Your task to perform on an android device: install app "Reddit" Image 0: 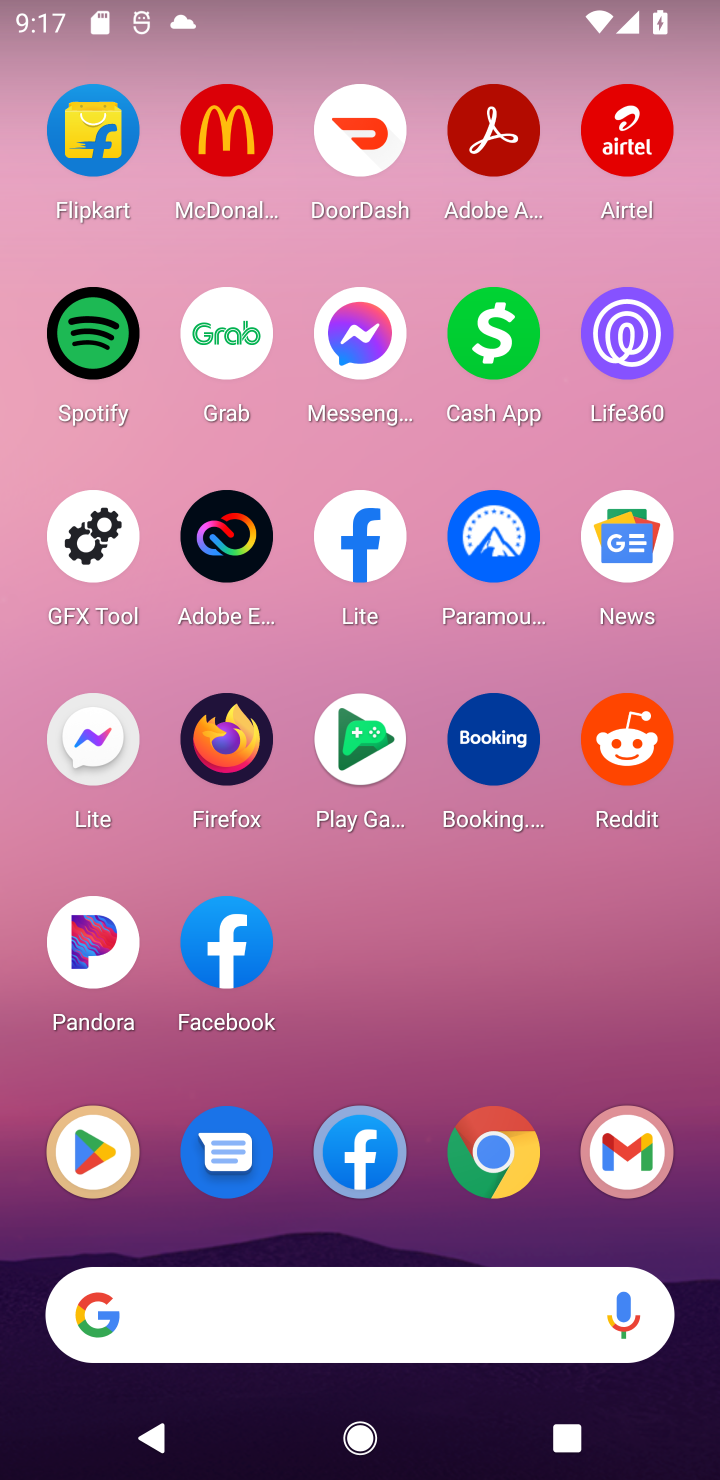
Step 0: click (95, 1159)
Your task to perform on an android device: install app "Reddit" Image 1: 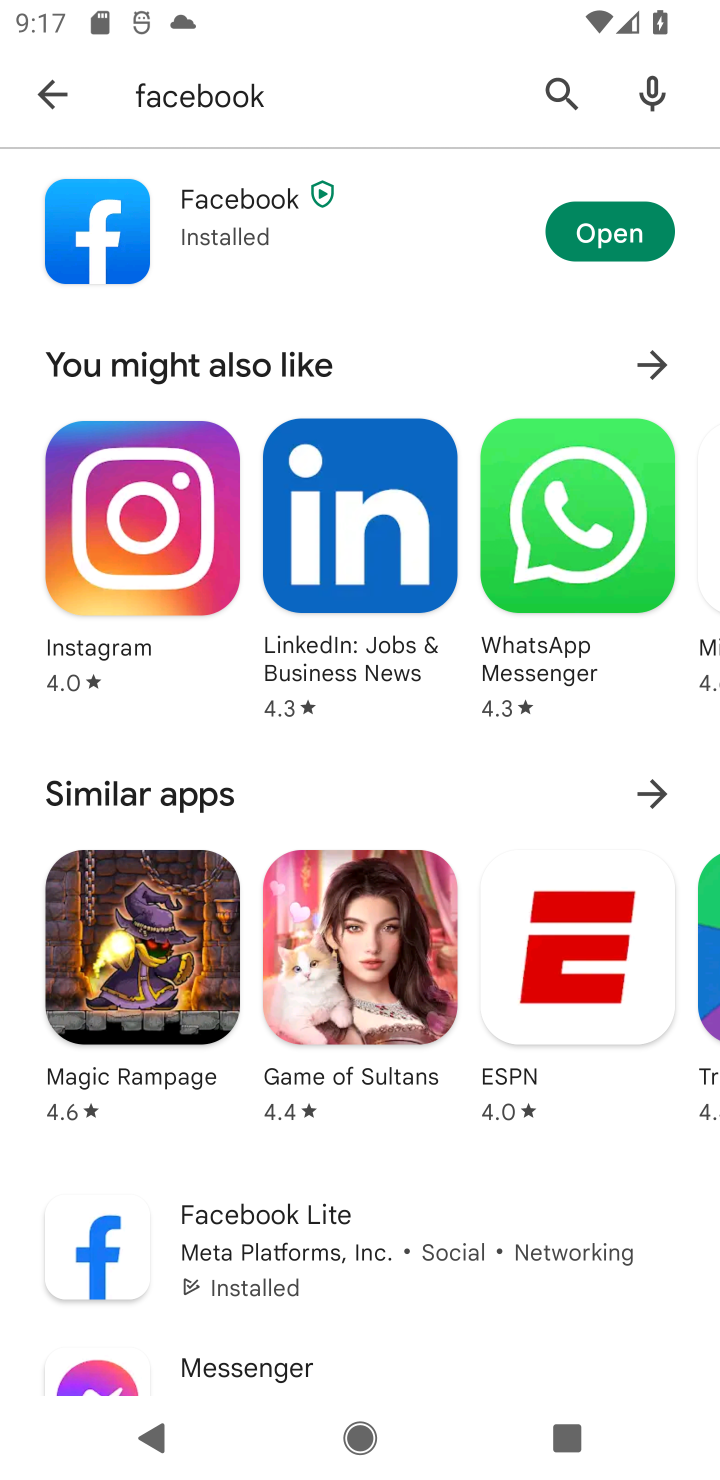
Step 1: click (613, 255)
Your task to perform on an android device: install app "Reddit" Image 2: 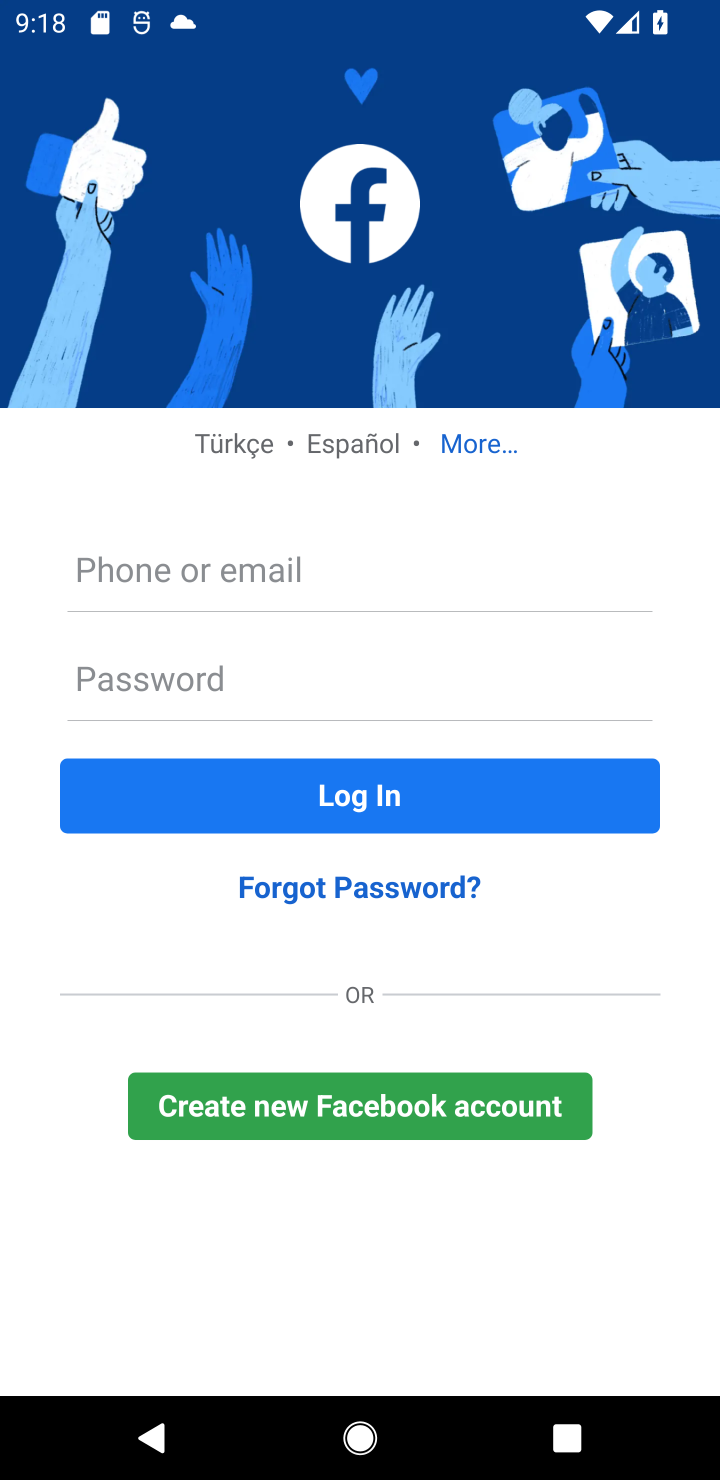
Step 2: press back button
Your task to perform on an android device: install app "Reddit" Image 3: 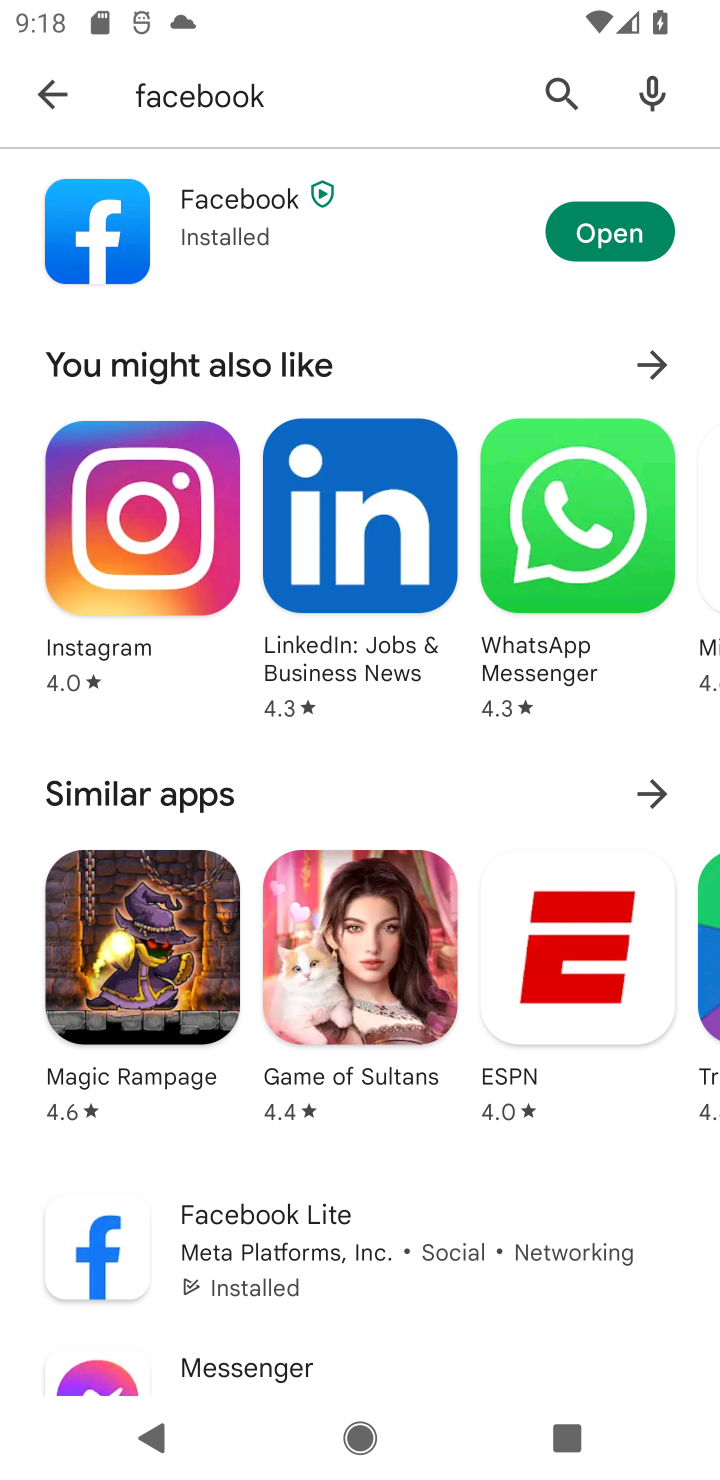
Step 3: click (50, 91)
Your task to perform on an android device: install app "Reddit" Image 4: 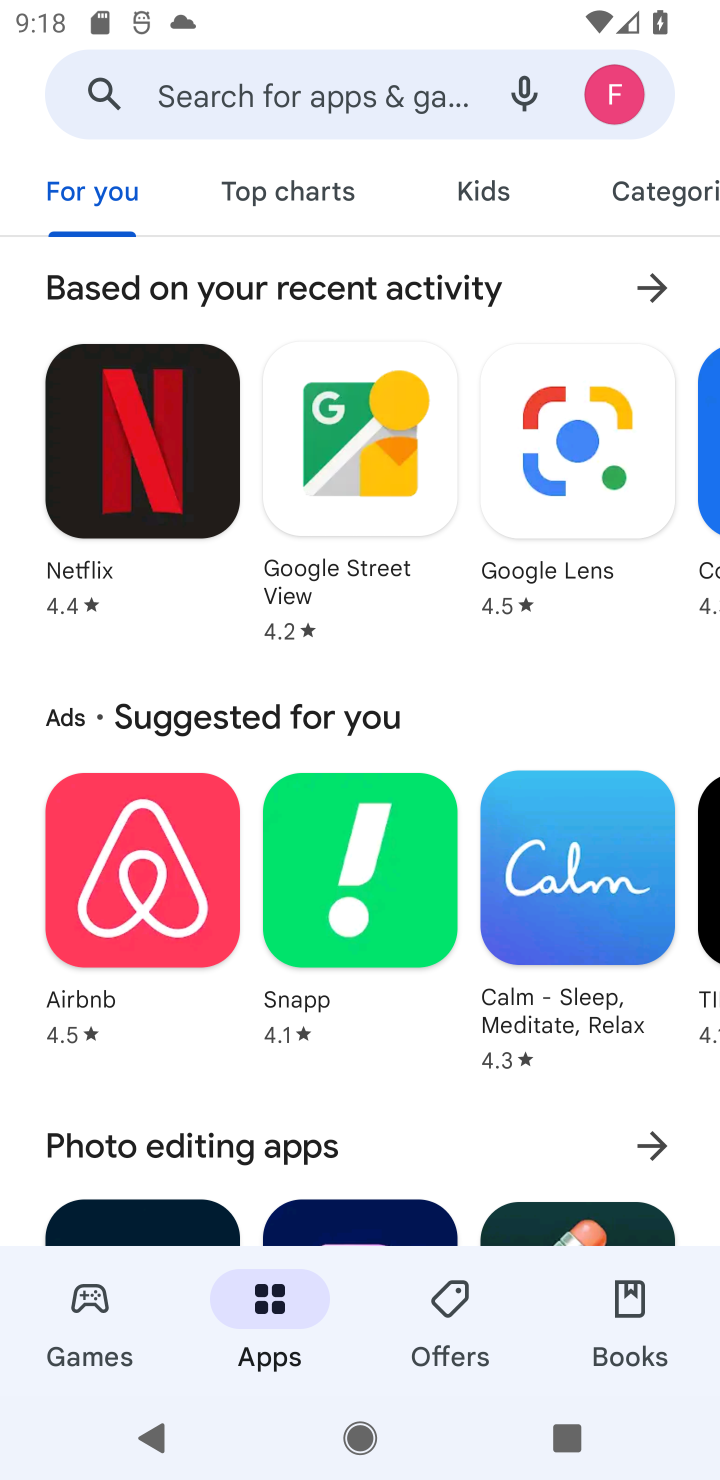
Step 4: click (218, 91)
Your task to perform on an android device: install app "Reddit" Image 5: 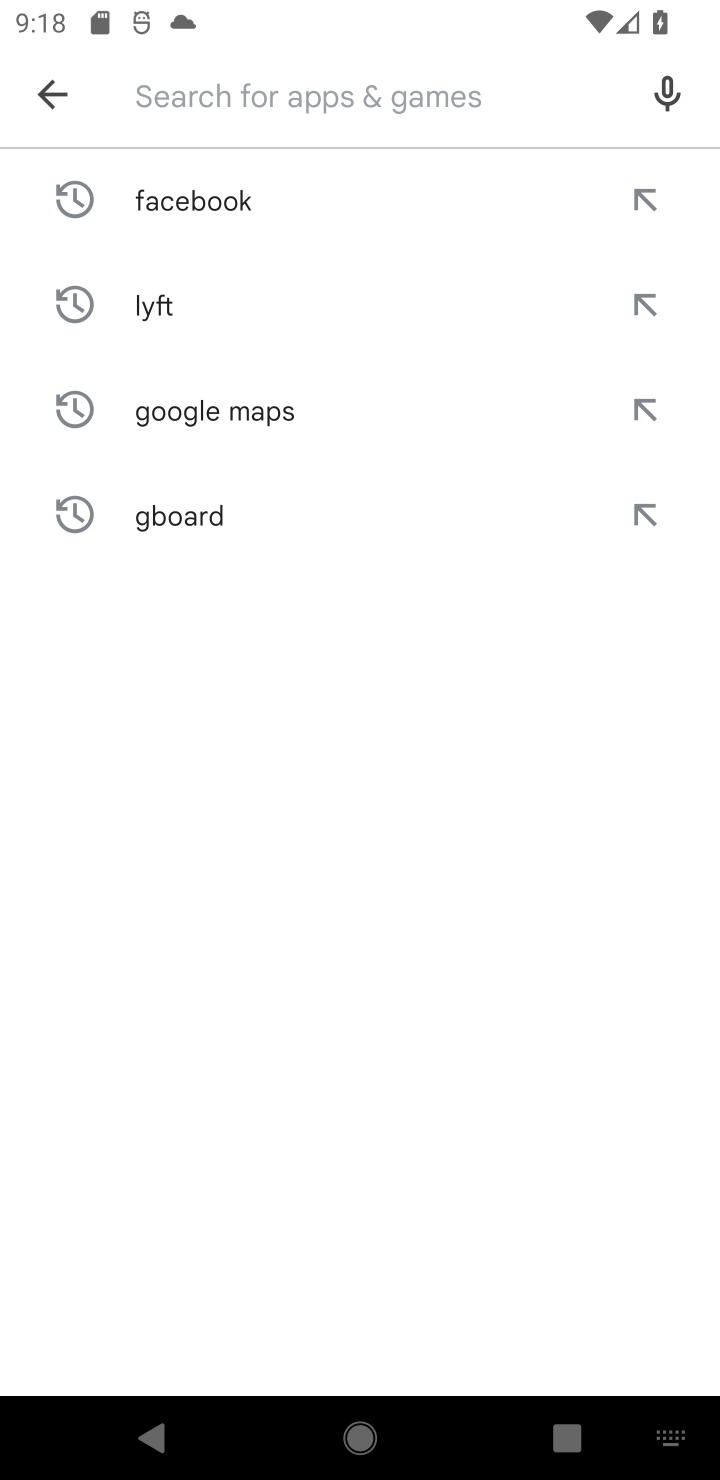
Step 5: type "Reddit"
Your task to perform on an android device: install app "Reddit" Image 6: 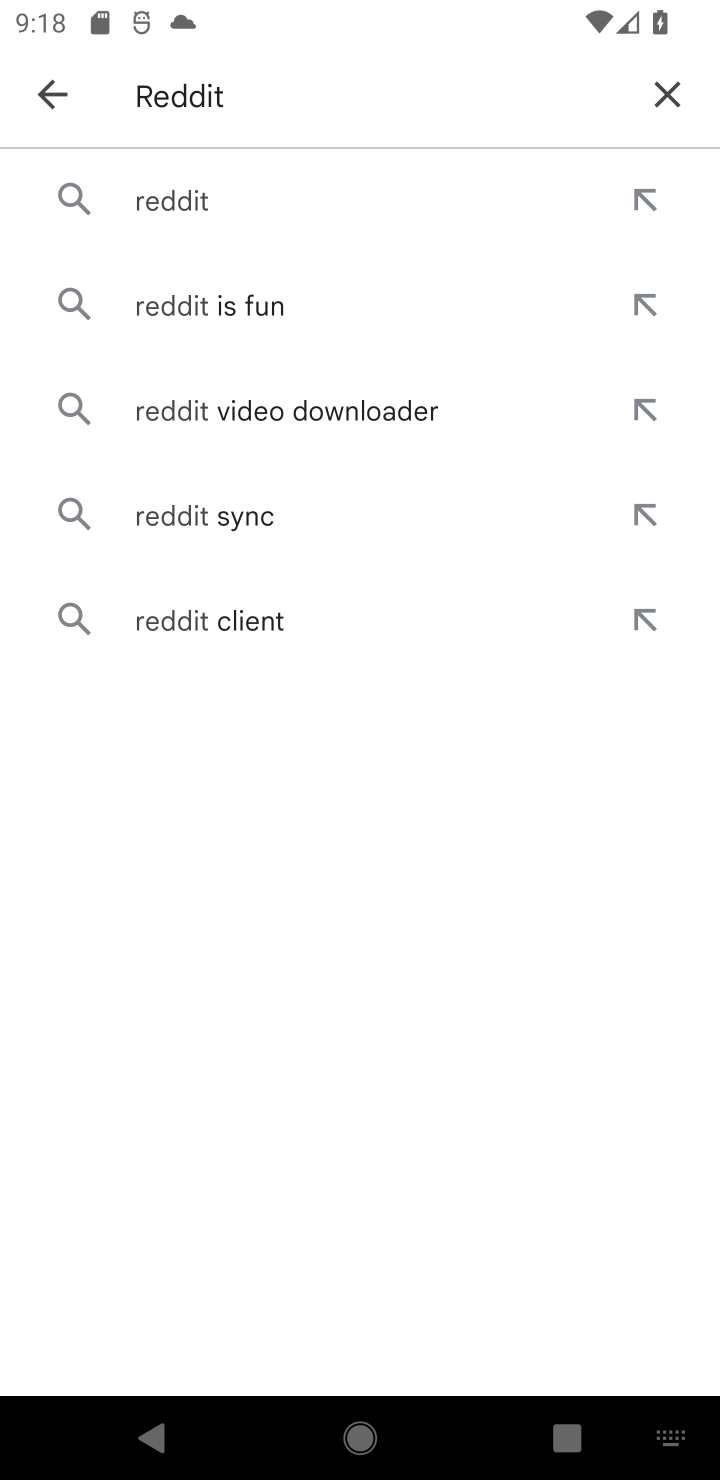
Step 6: click (185, 213)
Your task to perform on an android device: install app "Reddit" Image 7: 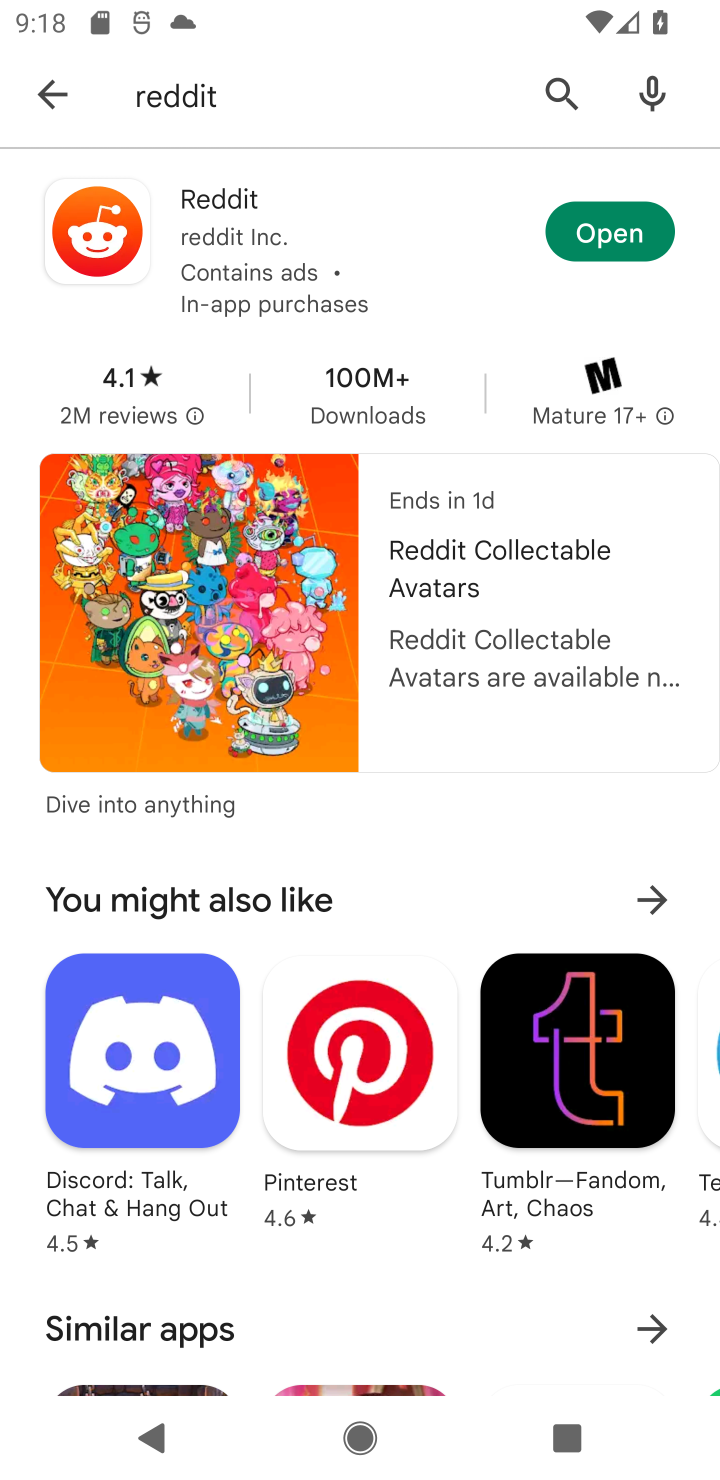
Step 7: click (609, 238)
Your task to perform on an android device: install app "Reddit" Image 8: 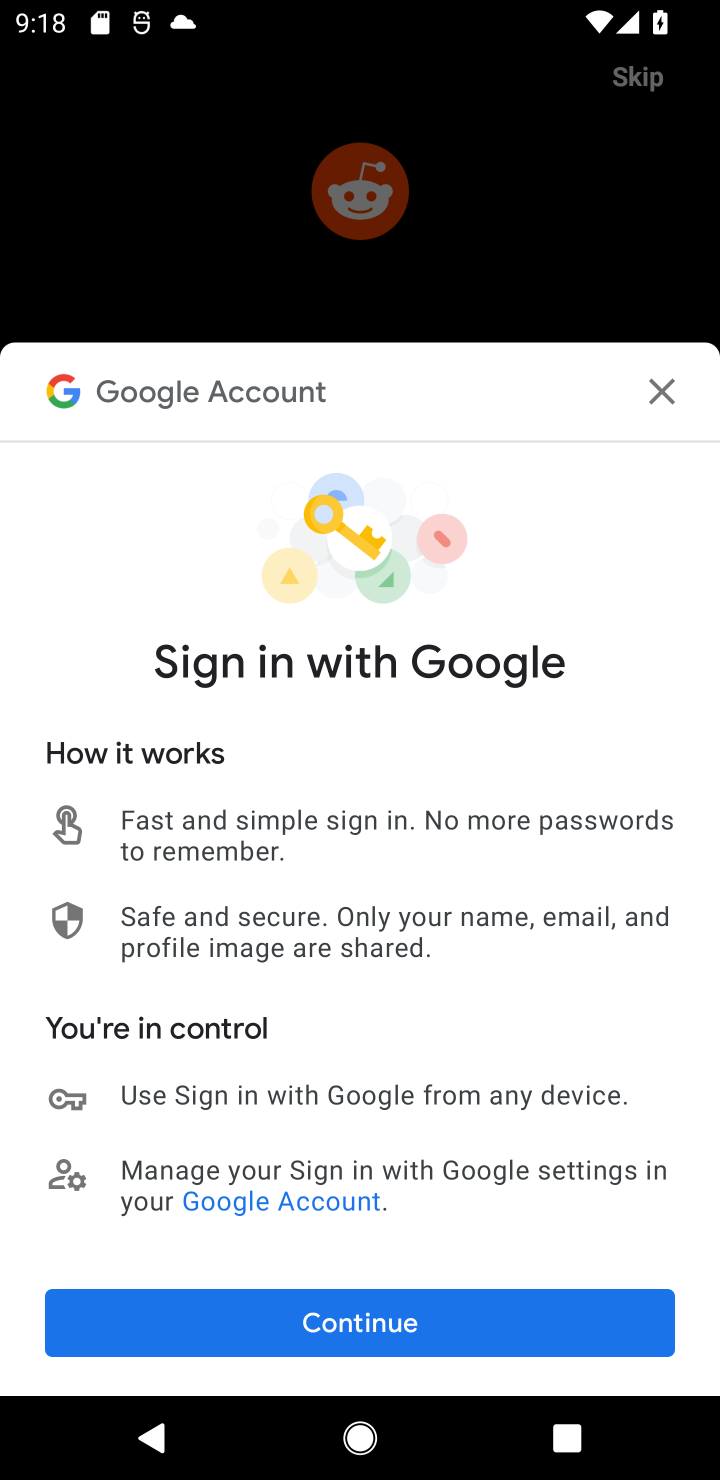
Step 8: click (387, 1279)
Your task to perform on an android device: install app "Reddit" Image 9: 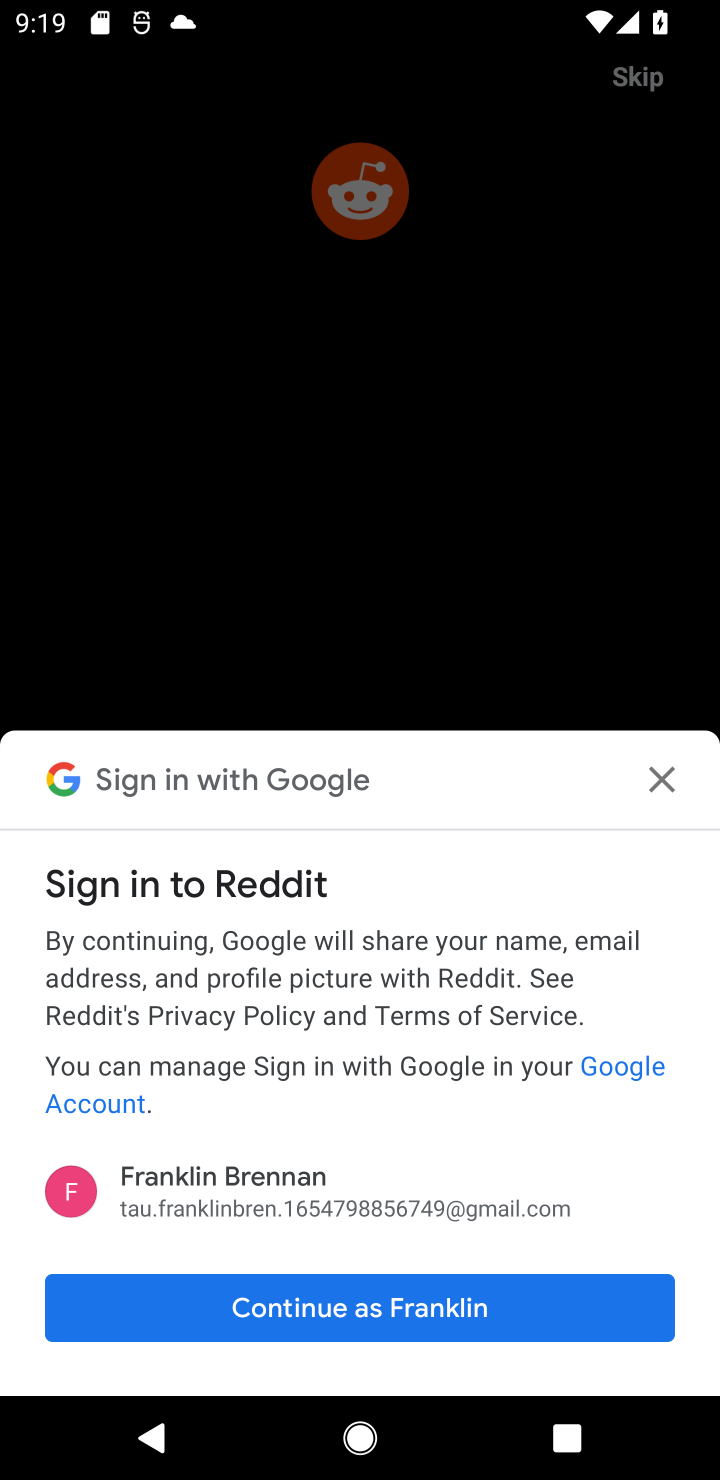
Step 9: click (358, 1288)
Your task to perform on an android device: install app "Reddit" Image 10: 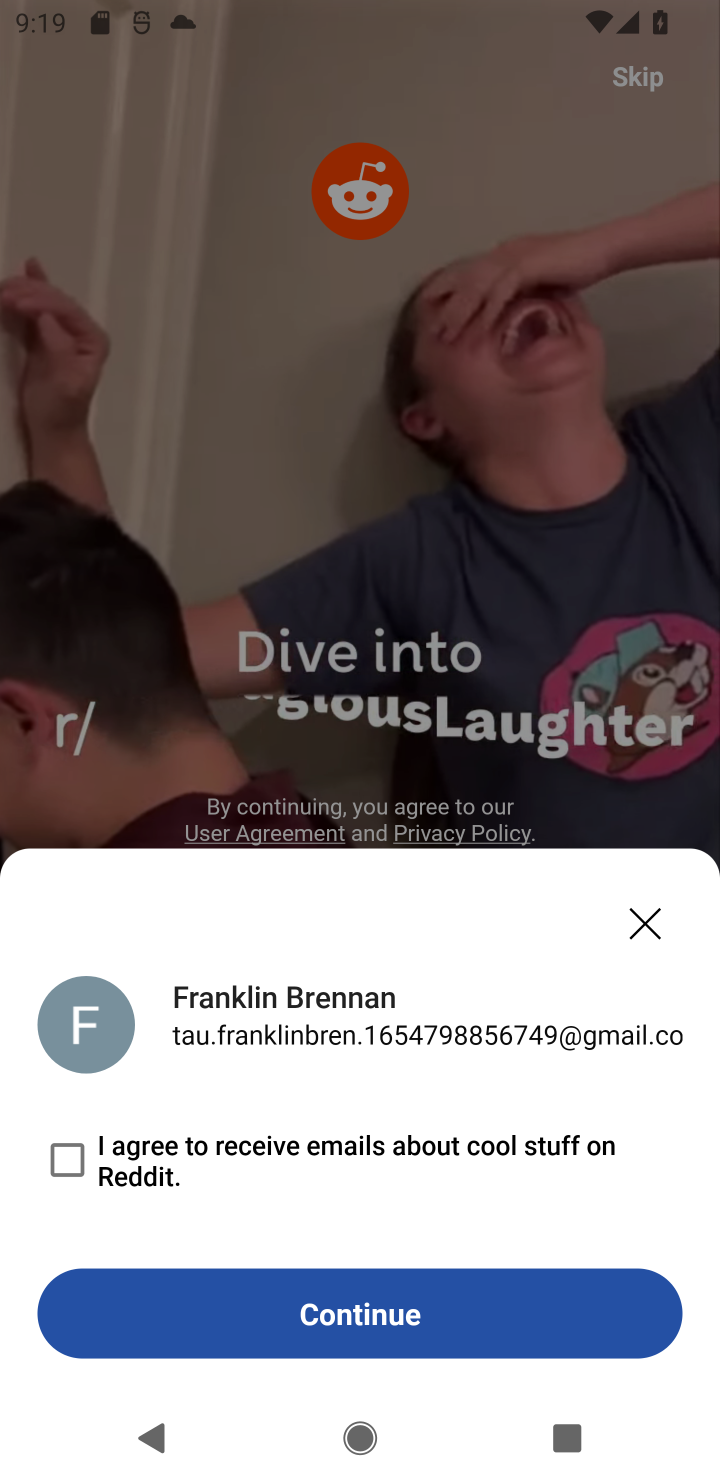
Step 10: task complete